Your task to perform on an android device: clear all cookies in the chrome app Image 0: 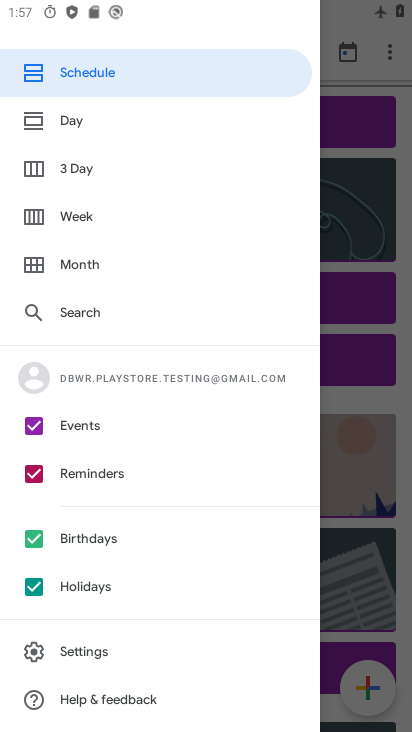
Step 0: drag from (203, 606) to (228, 67)
Your task to perform on an android device: clear all cookies in the chrome app Image 1: 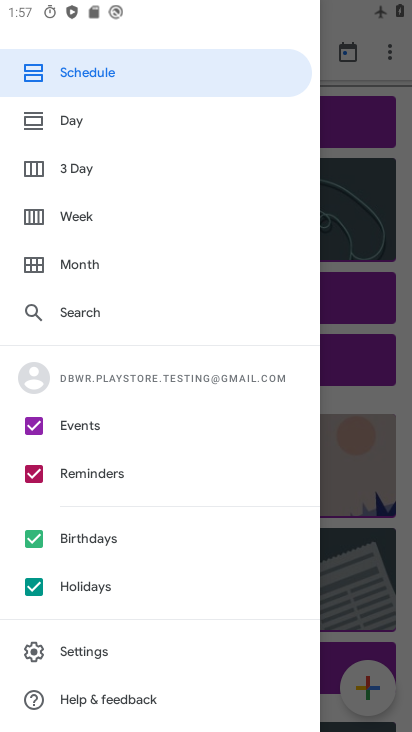
Step 1: press home button
Your task to perform on an android device: clear all cookies in the chrome app Image 2: 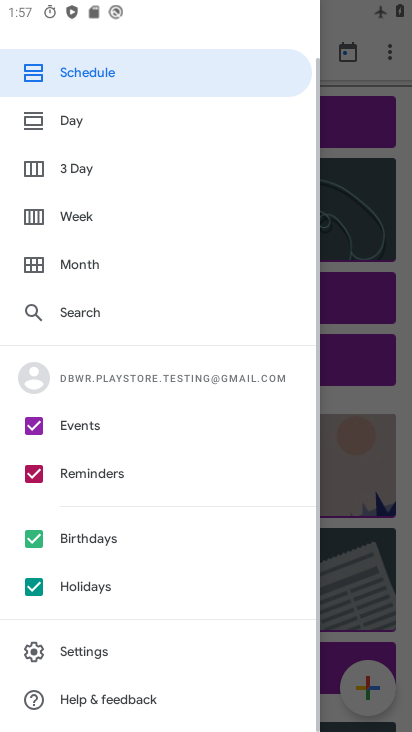
Step 2: press home button
Your task to perform on an android device: clear all cookies in the chrome app Image 3: 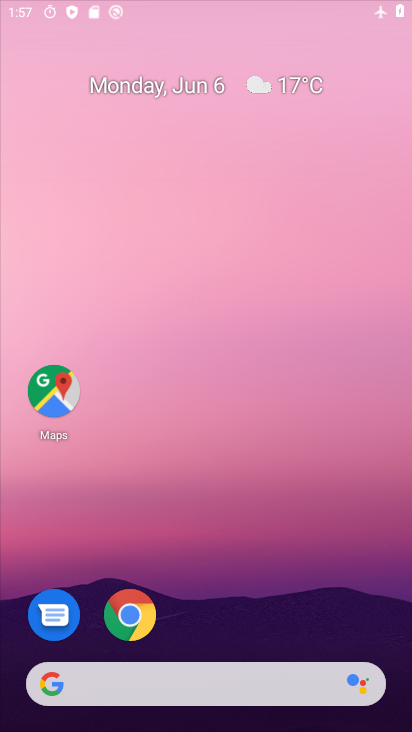
Step 3: drag from (366, 374) to (411, 51)
Your task to perform on an android device: clear all cookies in the chrome app Image 4: 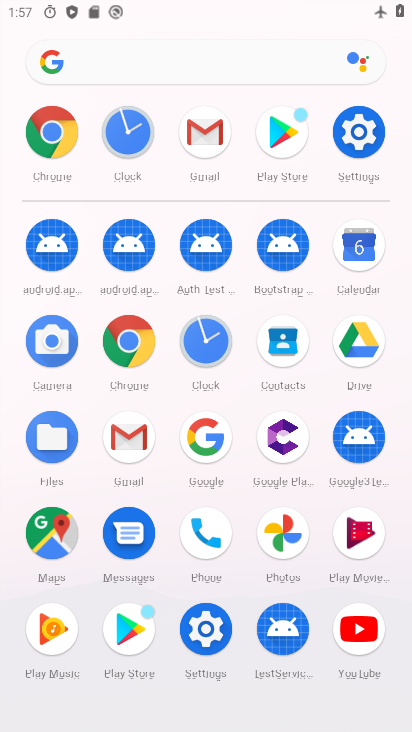
Step 4: click (131, 340)
Your task to perform on an android device: clear all cookies in the chrome app Image 5: 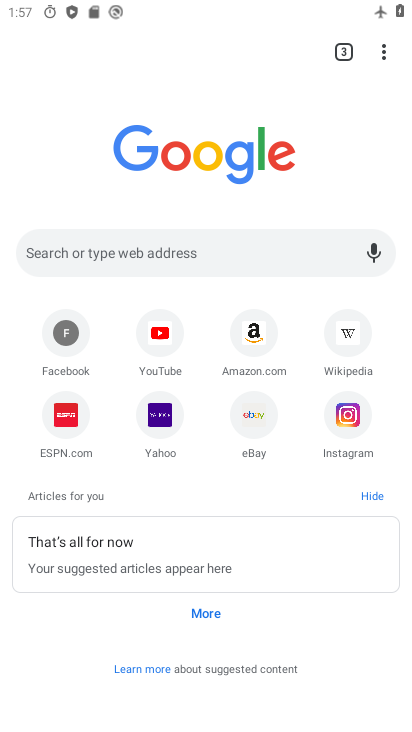
Step 5: click (386, 51)
Your task to perform on an android device: clear all cookies in the chrome app Image 6: 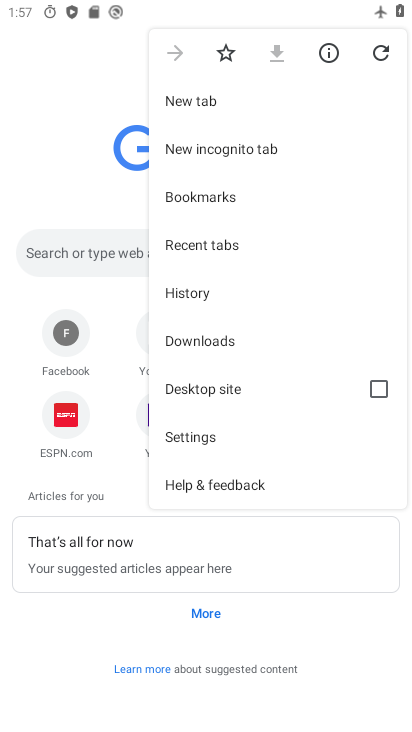
Step 6: drag from (273, 150) to (383, 9)
Your task to perform on an android device: clear all cookies in the chrome app Image 7: 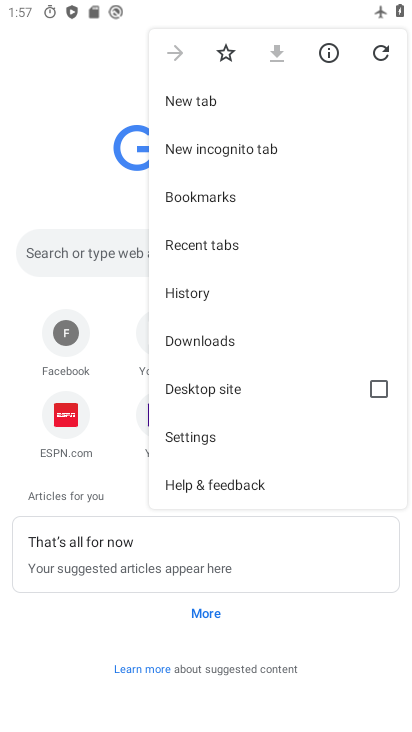
Step 7: click (236, 285)
Your task to perform on an android device: clear all cookies in the chrome app Image 8: 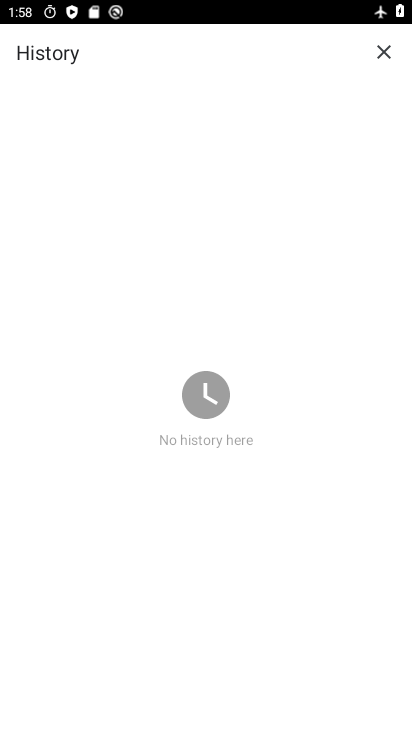
Step 8: click (286, 467)
Your task to perform on an android device: clear all cookies in the chrome app Image 9: 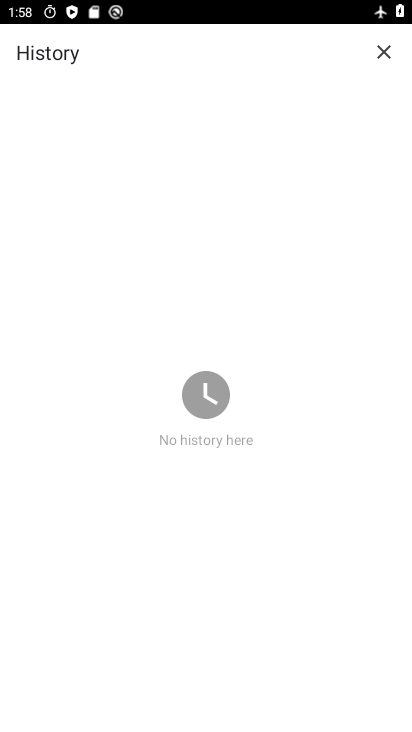
Step 9: task complete